Your task to perform on an android device: allow notifications from all sites in the chrome app Image 0: 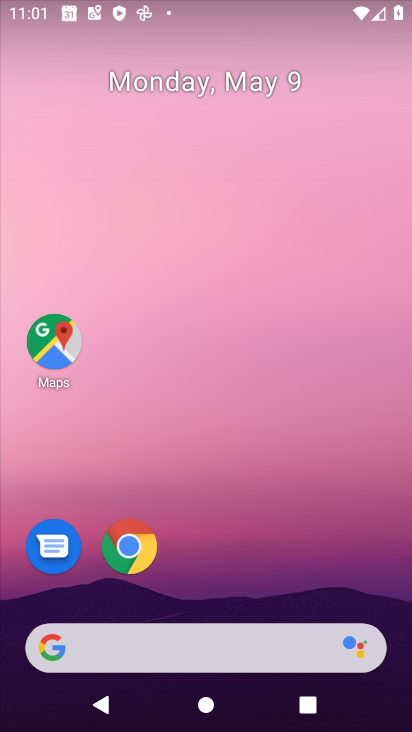
Step 0: click (130, 539)
Your task to perform on an android device: allow notifications from all sites in the chrome app Image 1: 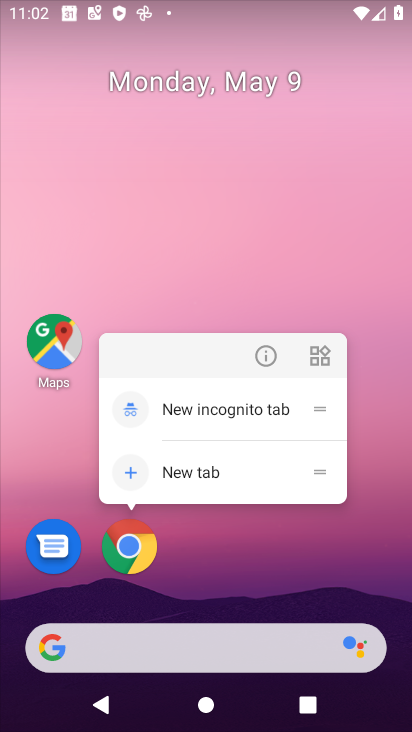
Step 1: click (234, 705)
Your task to perform on an android device: allow notifications from all sites in the chrome app Image 2: 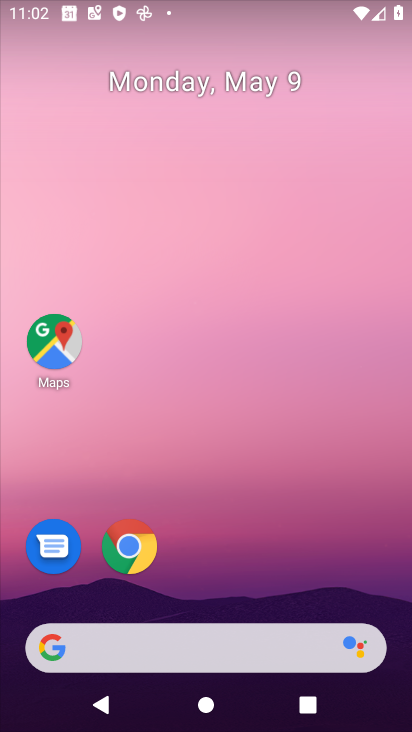
Step 2: click (240, 708)
Your task to perform on an android device: allow notifications from all sites in the chrome app Image 3: 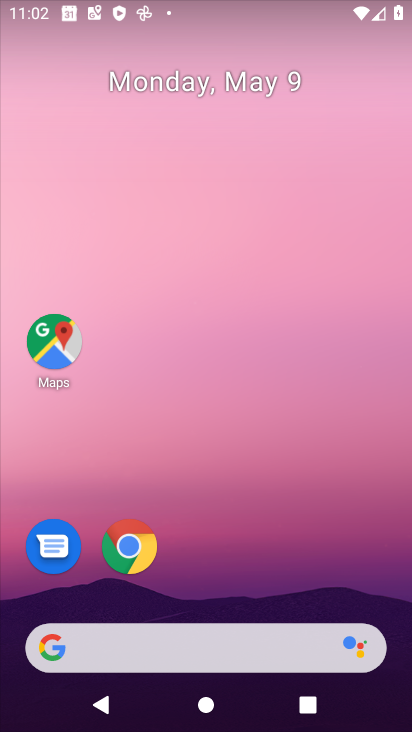
Step 3: click (121, 546)
Your task to perform on an android device: allow notifications from all sites in the chrome app Image 4: 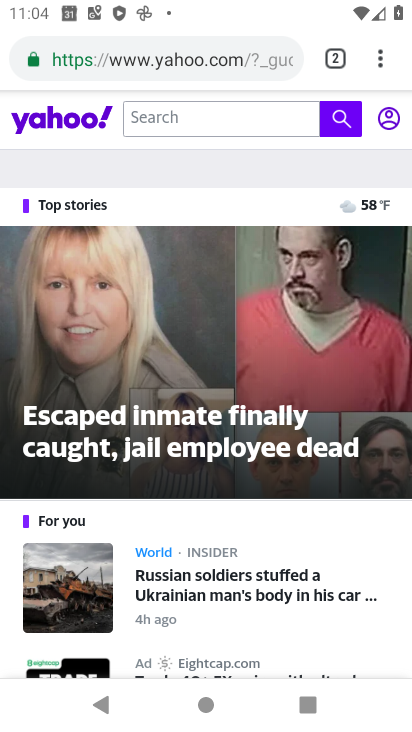
Step 4: click (380, 60)
Your task to perform on an android device: allow notifications from all sites in the chrome app Image 5: 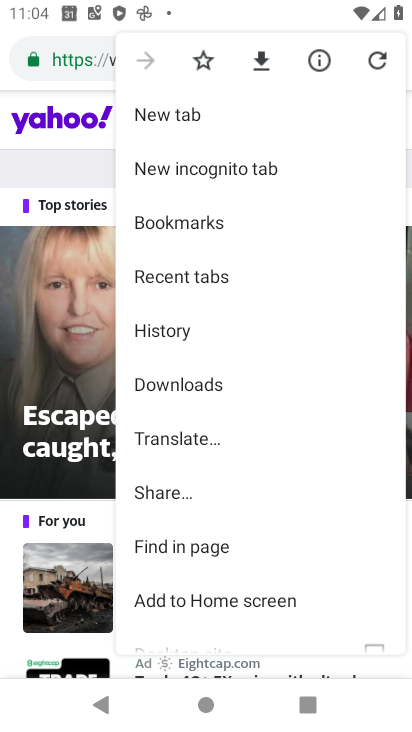
Step 5: drag from (274, 576) to (303, 133)
Your task to perform on an android device: allow notifications from all sites in the chrome app Image 6: 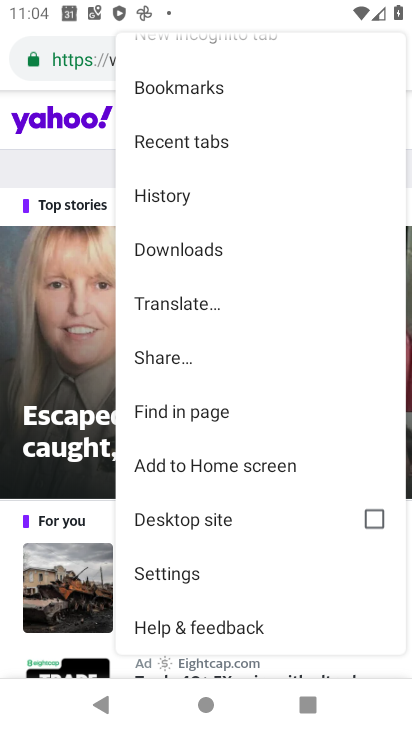
Step 6: click (213, 575)
Your task to perform on an android device: allow notifications from all sites in the chrome app Image 7: 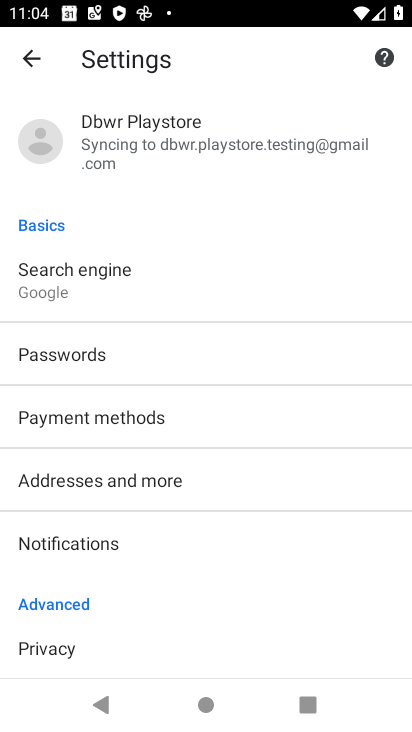
Step 7: drag from (185, 633) to (275, 187)
Your task to perform on an android device: allow notifications from all sites in the chrome app Image 8: 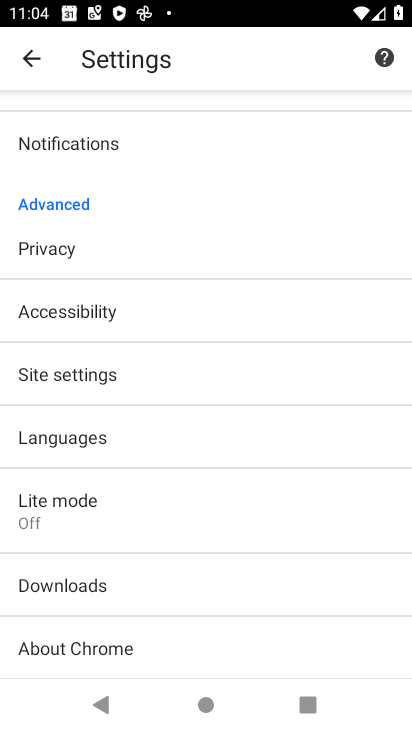
Step 8: click (124, 149)
Your task to perform on an android device: allow notifications from all sites in the chrome app Image 9: 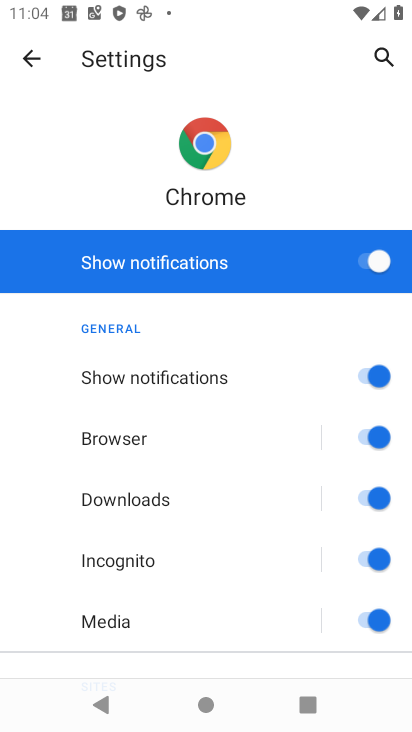
Step 9: drag from (274, 586) to (207, 9)
Your task to perform on an android device: allow notifications from all sites in the chrome app Image 10: 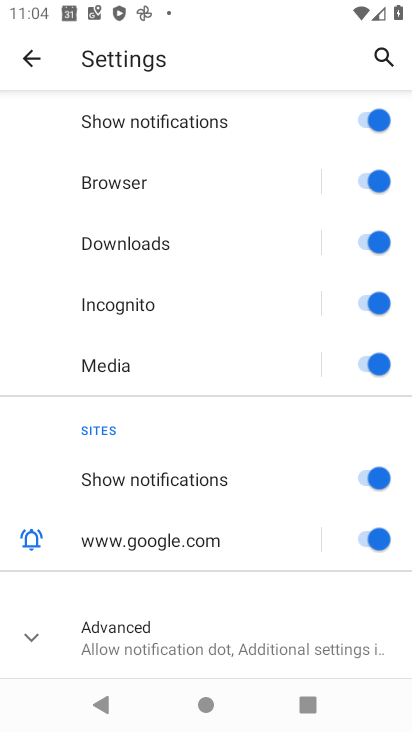
Step 10: click (383, 476)
Your task to perform on an android device: allow notifications from all sites in the chrome app Image 11: 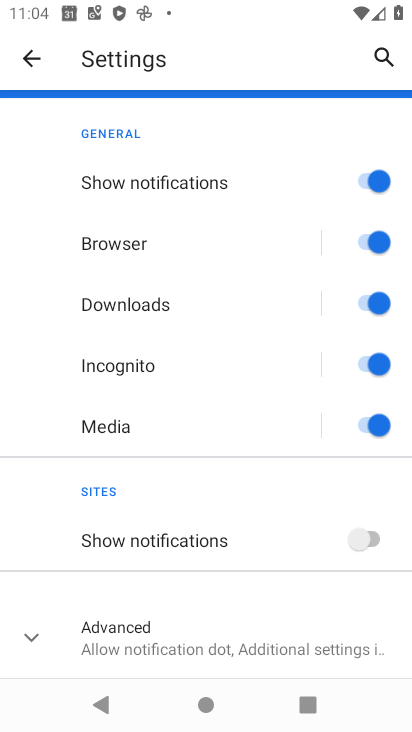
Step 11: task complete